Your task to perform on an android device: add a contact Image 0: 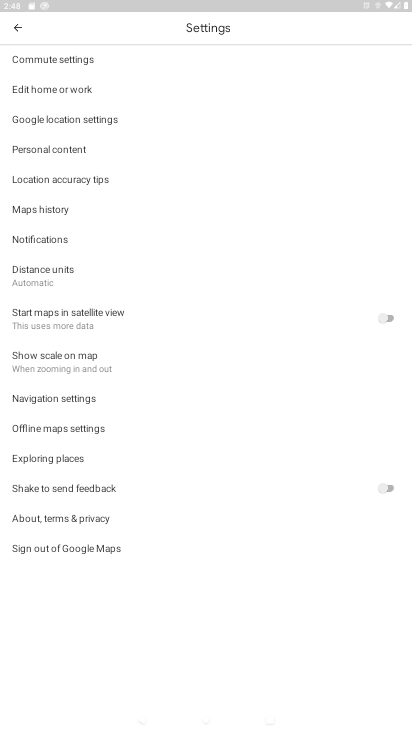
Step 0: press home button
Your task to perform on an android device: add a contact Image 1: 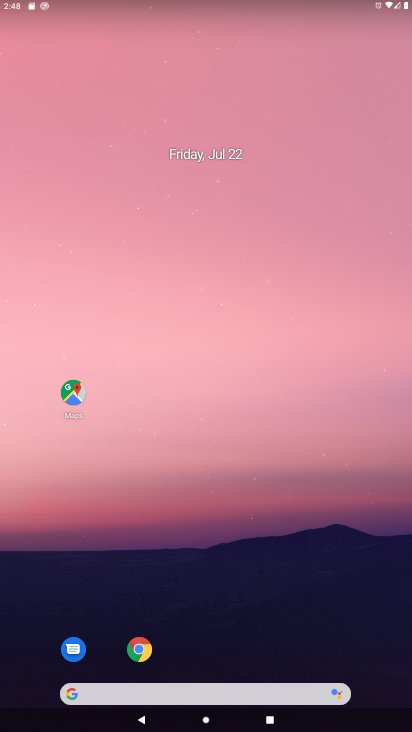
Step 1: drag from (225, 725) to (224, 222)
Your task to perform on an android device: add a contact Image 2: 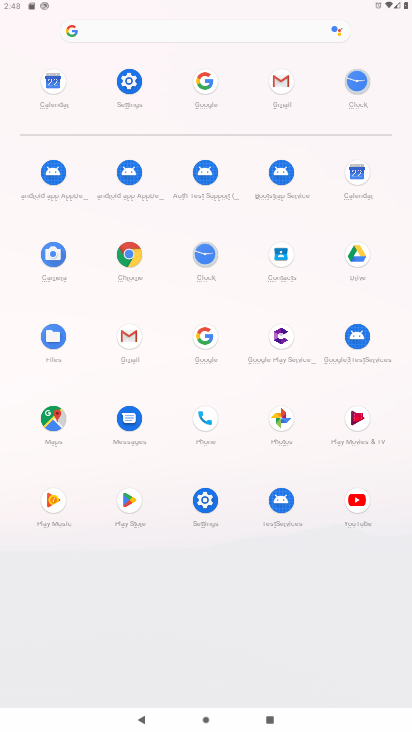
Step 2: click (279, 250)
Your task to perform on an android device: add a contact Image 3: 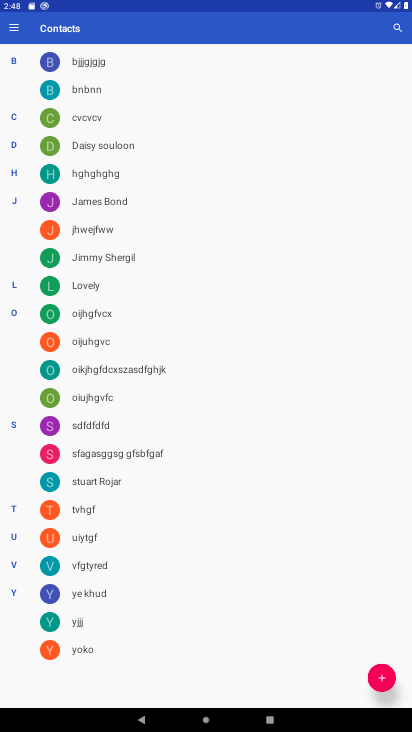
Step 3: click (382, 679)
Your task to perform on an android device: add a contact Image 4: 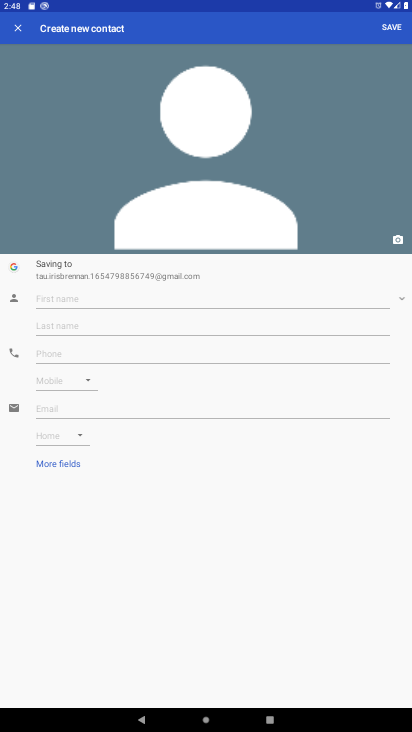
Step 4: click (152, 295)
Your task to perform on an android device: add a contact Image 5: 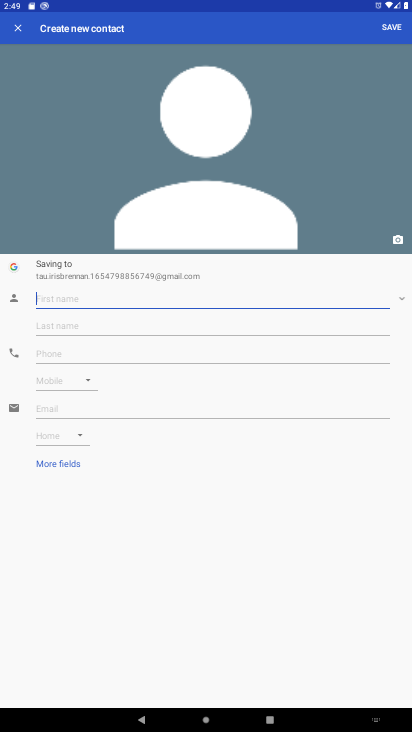
Step 5: type "raja raja"
Your task to perform on an android device: add a contact Image 6: 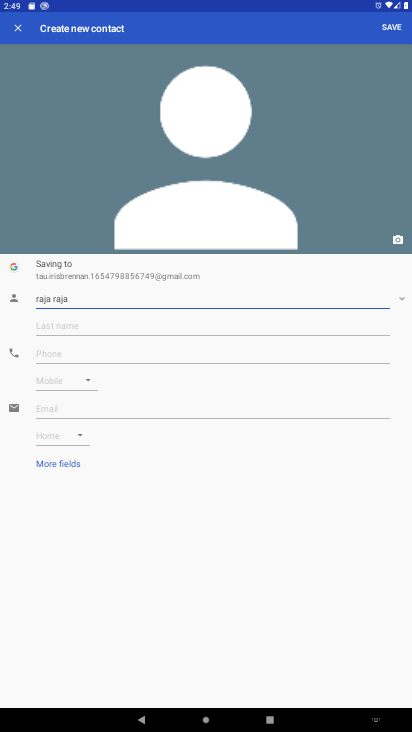
Step 6: click (80, 351)
Your task to perform on an android device: add a contact Image 7: 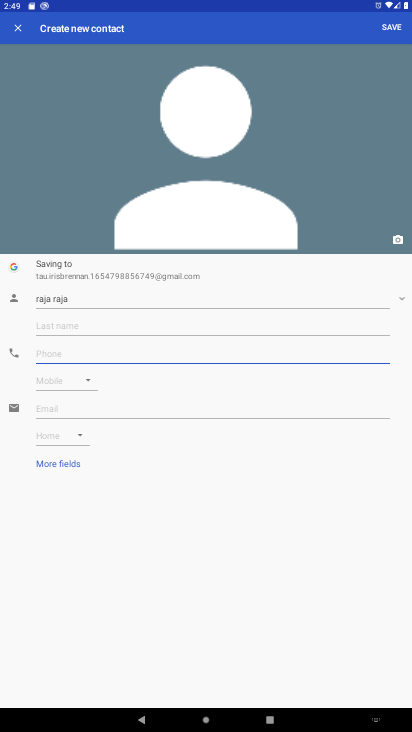
Step 7: type "4444"
Your task to perform on an android device: add a contact Image 8: 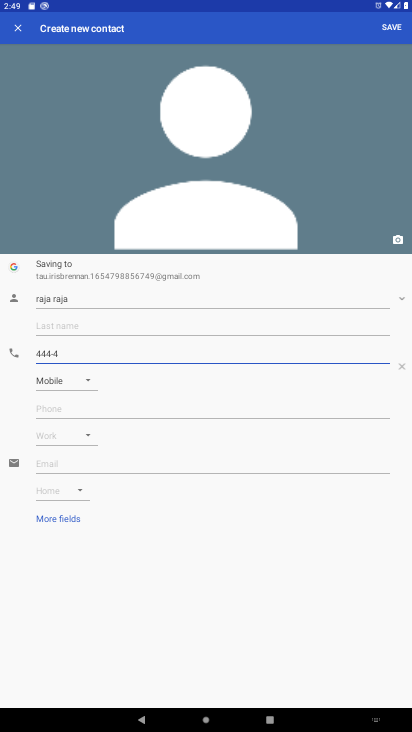
Step 8: click (387, 27)
Your task to perform on an android device: add a contact Image 9: 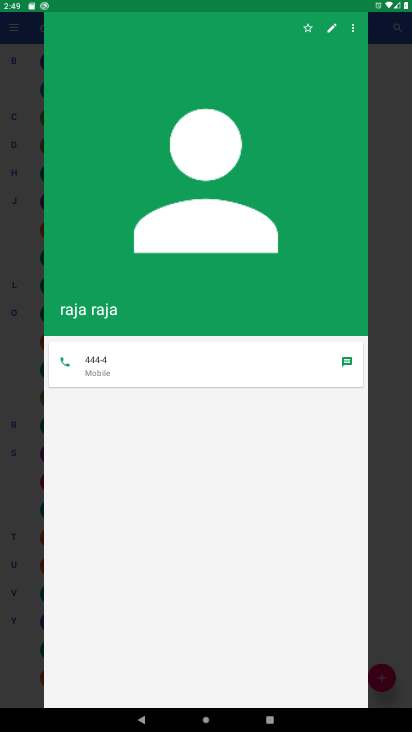
Step 9: task complete